Your task to perform on an android device: toggle data saver in the chrome app Image 0: 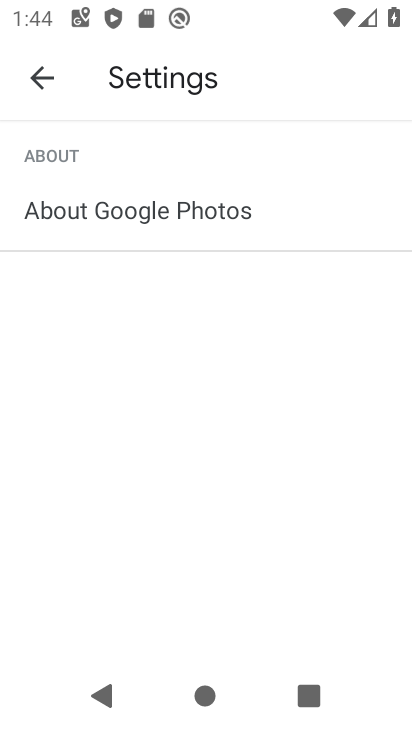
Step 0: press home button
Your task to perform on an android device: toggle data saver in the chrome app Image 1: 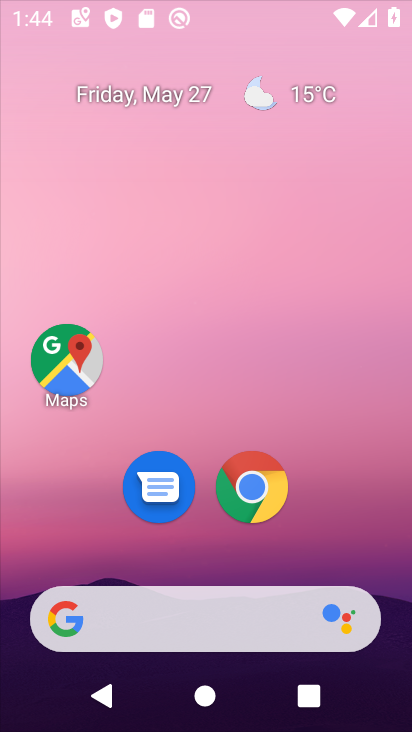
Step 1: drag from (324, 441) to (230, 33)
Your task to perform on an android device: toggle data saver in the chrome app Image 2: 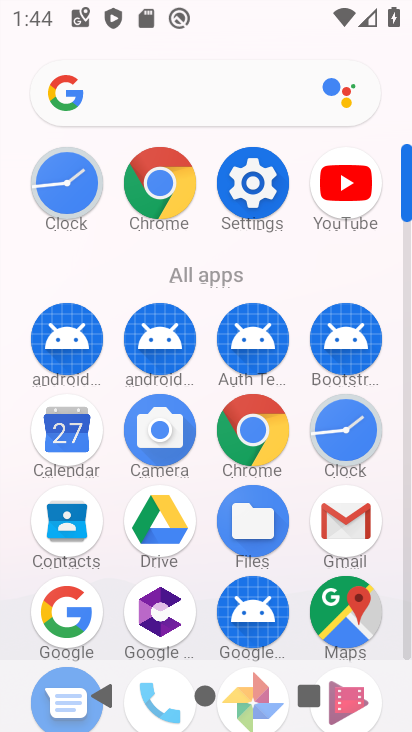
Step 2: click (259, 418)
Your task to perform on an android device: toggle data saver in the chrome app Image 3: 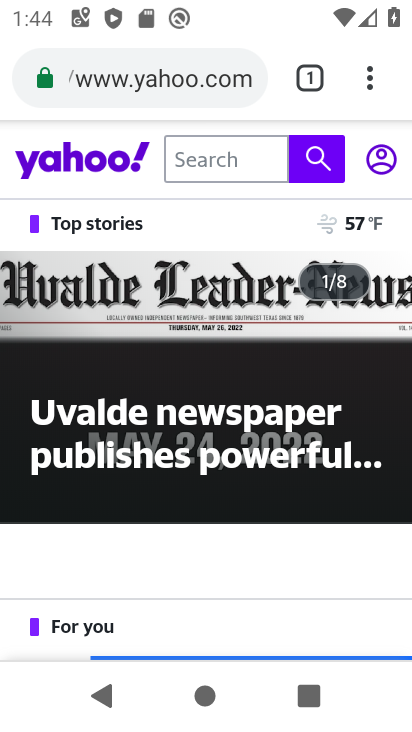
Step 3: drag from (372, 74) to (93, 546)
Your task to perform on an android device: toggle data saver in the chrome app Image 4: 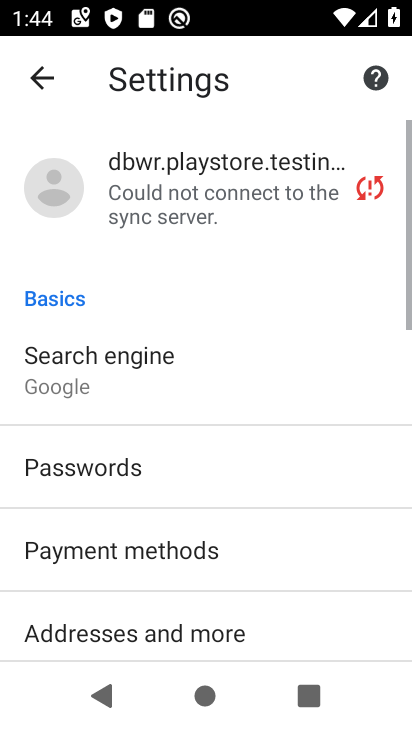
Step 4: drag from (92, 545) to (197, 0)
Your task to perform on an android device: toggle data saver in the chrome app Image 5: 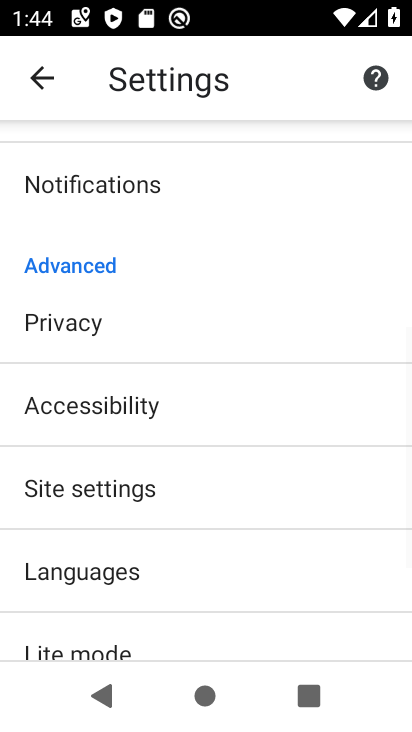
Step 5: drag from (154, 541) to (152, 193)
Your task to perform on an android device: toggle data saver in the chrome app Image 6: 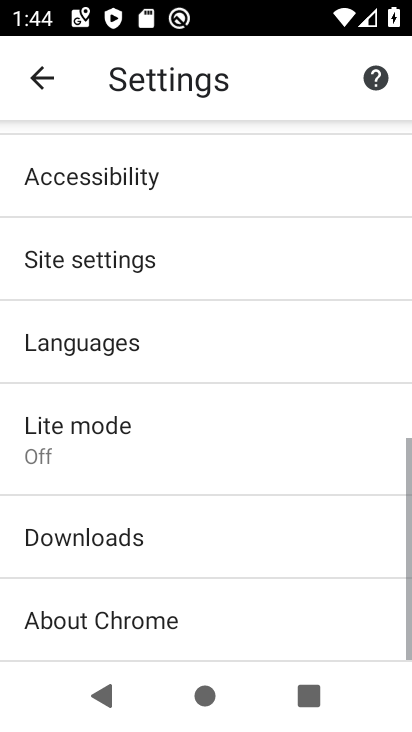
Step 6: click (124, 442)
Your task to perform on an android device: toggle data saver in the chrome app Image 7: 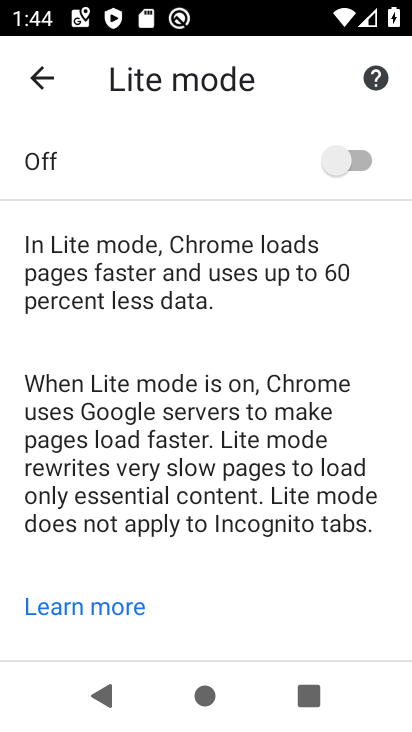
Step 7: click (344, 156)
Your task to perform on an android device: toggle data saver in the chrome app Image 8: 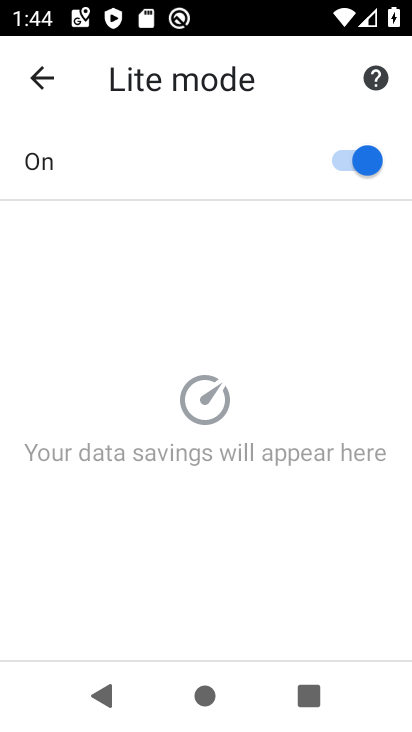
Step 8: task complete